Your task to perform on an android device: Open sound settings Image 0: 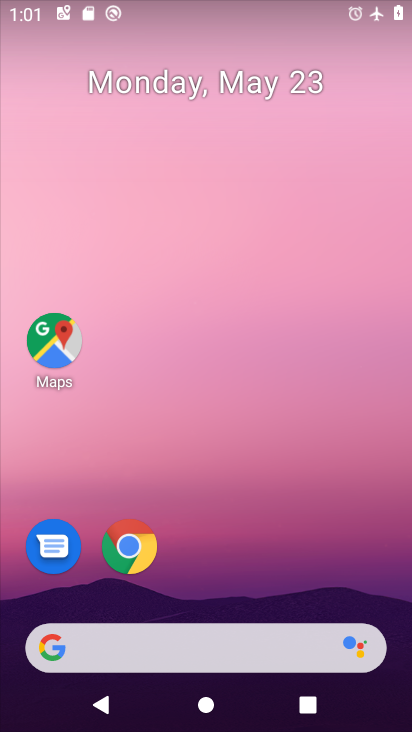
Step 0: drag from (228, 550) to (267, 0)
Your task to perform on an android device: Open sound settings Image 1: 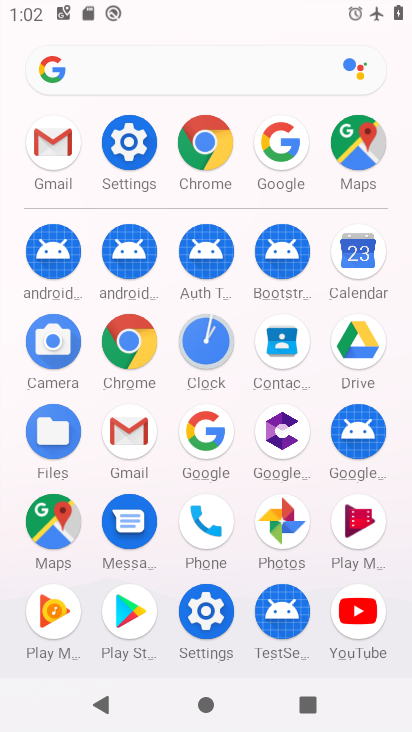
Step 1: click (135, 166)
Your task to perform on an android device: Open sound settings Image 2: 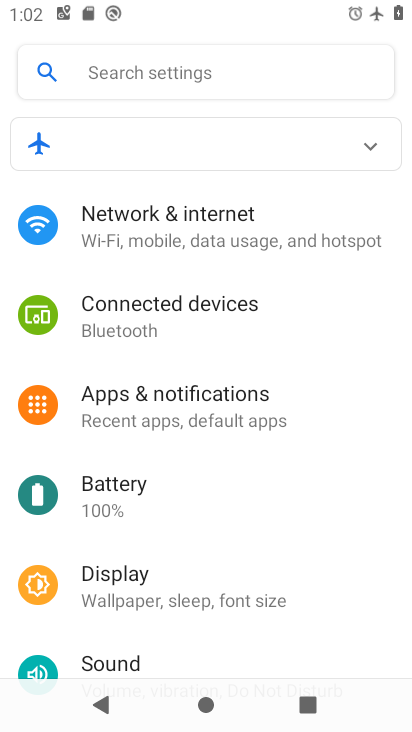
Step 2: drag from (200, 537) to (233, 174)
Your task to perform on an android device: Open sound settings Image 3: 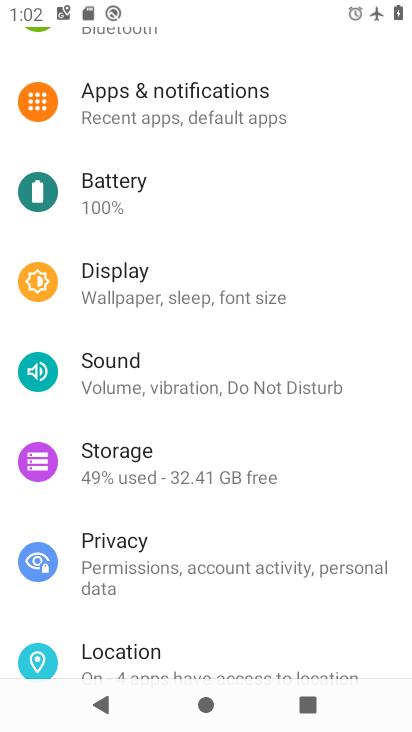
Step 3: click (218, 390)
Your task to perform on an android device: Open sound settings Image 4: 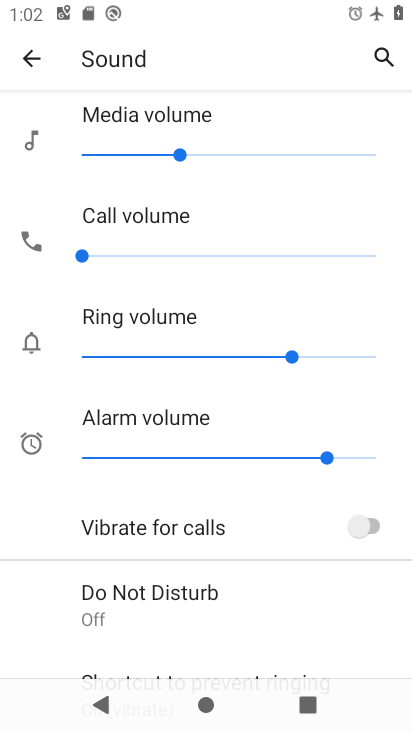
Step 4: task complete